Your task to perform on an android device: Go to settings Image 0: 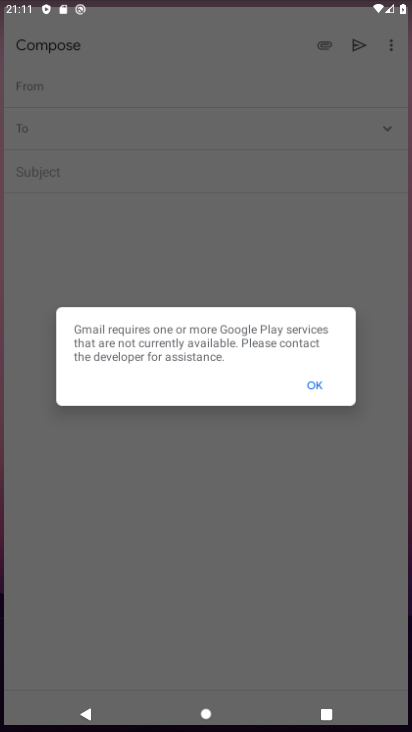
Step 0: drag from (198, 395) to (204, 215)
Your task to perform on an android device: Go to settings Image 1: 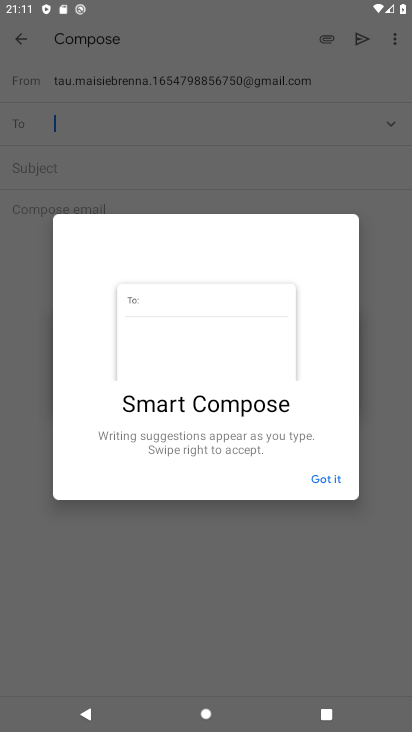
Step 1: press home button
Your task to perform on an android device: Go to settings Image 2: 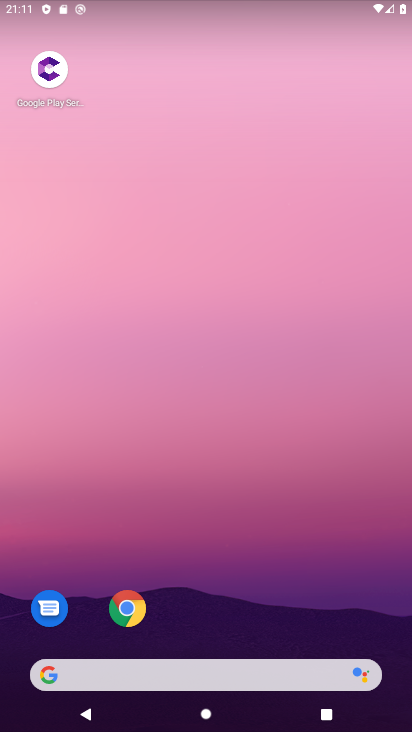
Step 2: drag from (191, 635) to (212, 13)
Your task to perform on an android device: Go to settings Image 3: 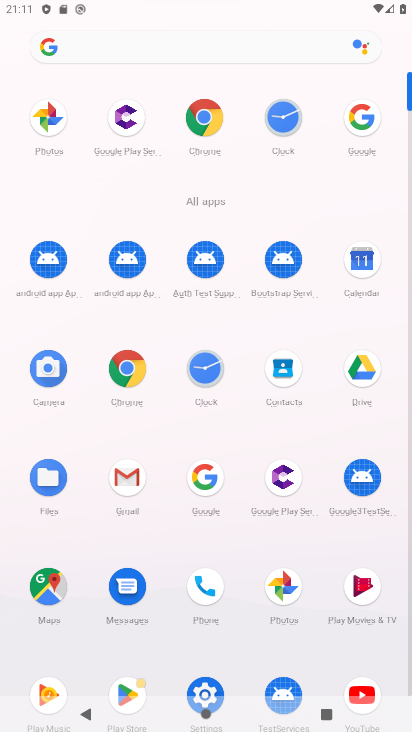
Step 3: click (202, 677)
Your task to perform on an android device: Go to settings Image 4: 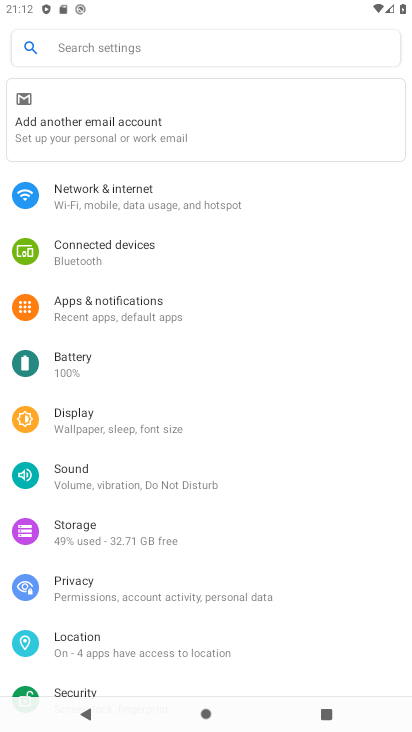
Step 4: task complete